Your task to perform on an android device: open sync settings in chrome Image 0: 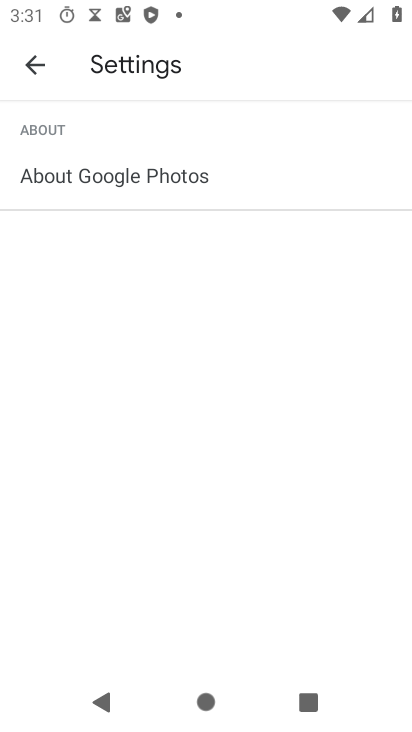
Step 0: press home button
Your task to perform on an android device: open sync settings in chrome Image 1: 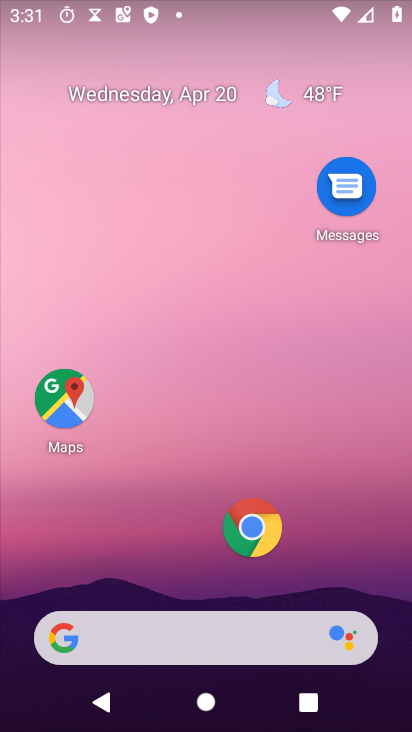
Step 1: drag from (156, 612) to (253, 154)
Your task to perform on an android device: open sync settings in chrome Image 2: 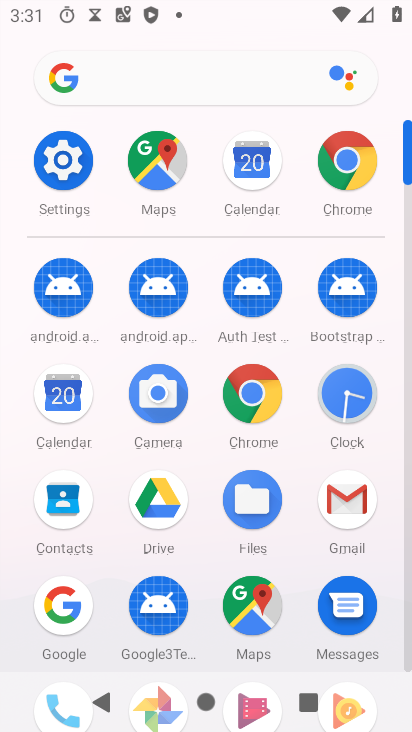
Step 2: click (349, 177)
Your task to perform on an android device: open sync settings in chrome Image 3: 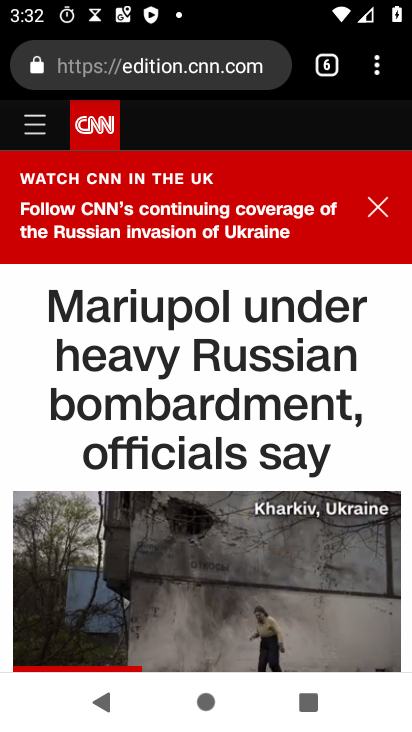
Step 3: click (364, 71)
Your task to perform on an android device: open sync settings in chrome Image 4: 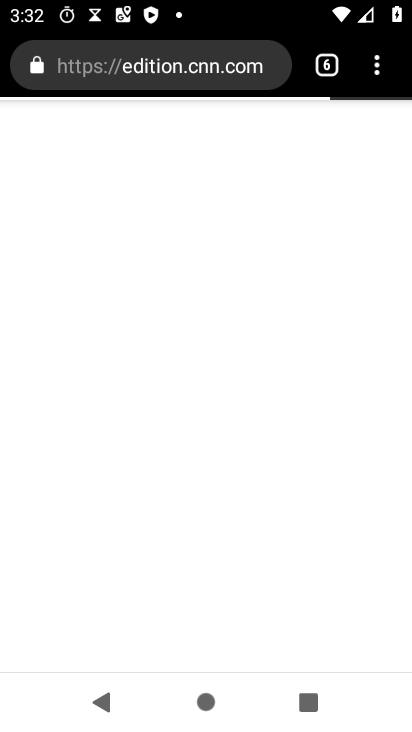
Step 4: click (367, 76)
Your task to perform on an android device: open sync settings in chrome Image 5: 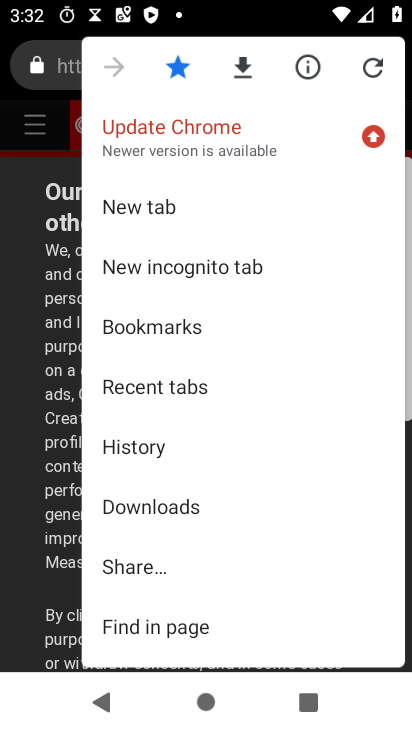
Step 5: drag from (214, 588) to (341, 282)
Your task to perform on an android device: open sync settings in chrome Image 6: 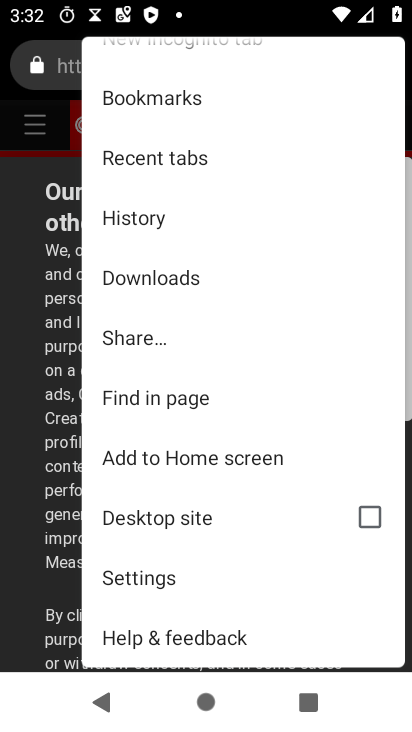
Step 6: click (130, 586)
Your task to perform on an android device: open sync settings in chrome Image 7: 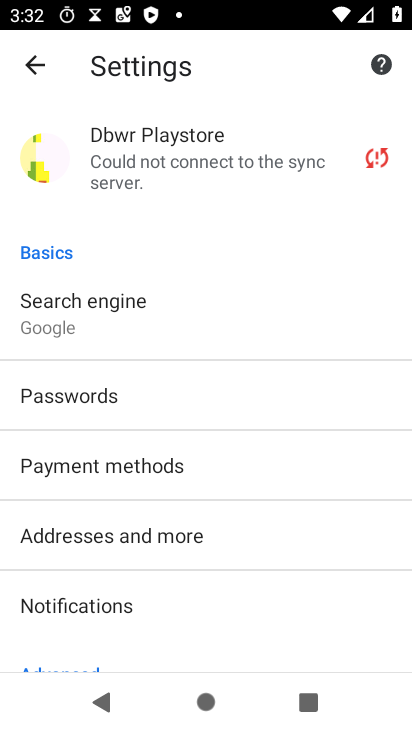
Step 7: click (187, 157)
Your task to perform on an android device: open sync settings in chrome Image 8: 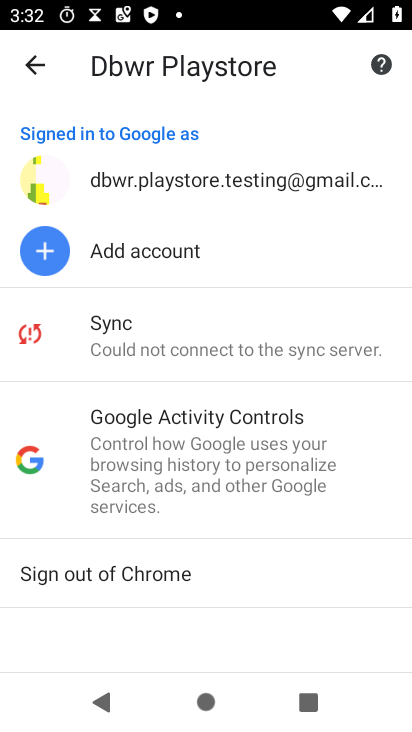
Step 8: click (179, 335)
Your task to perform on an android device: open sync settings in chrome Image 9: 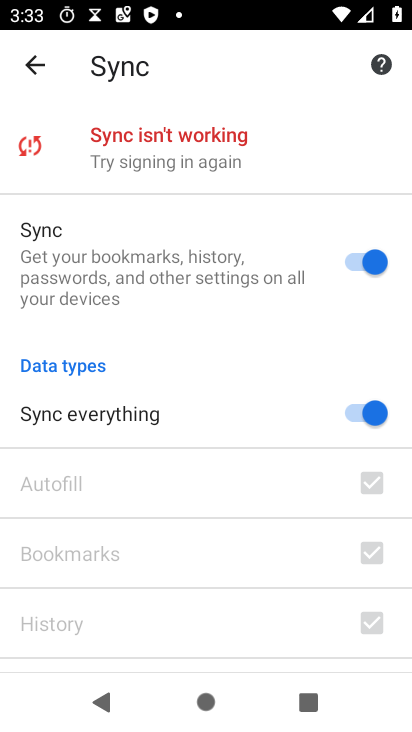
Step 9: task complete